Your task to perform on an android device: turn off location history Image 0: 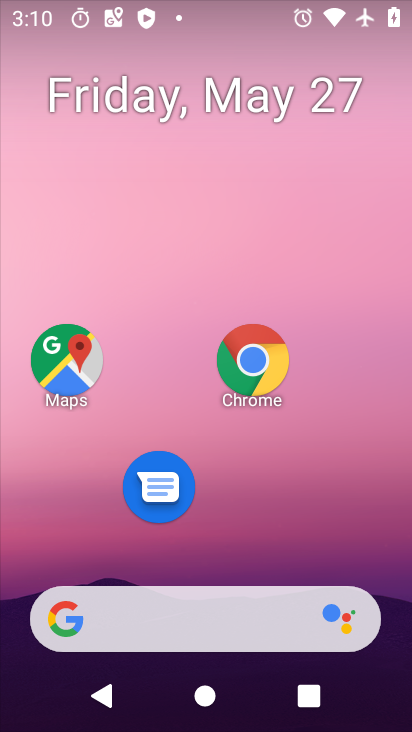
Step 0: drag from (242, 503) to (235, 48)
Your task to perform on an android device: turn off location history Image 1: 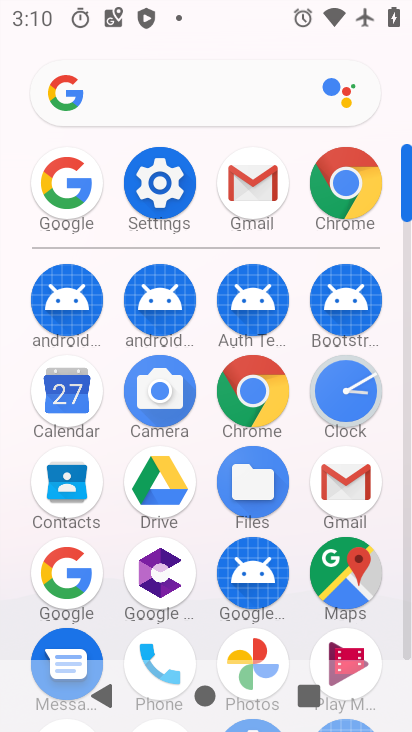
Step 1: click (173, 181)
Your task to perform on an android device: turn off location history Image 2: 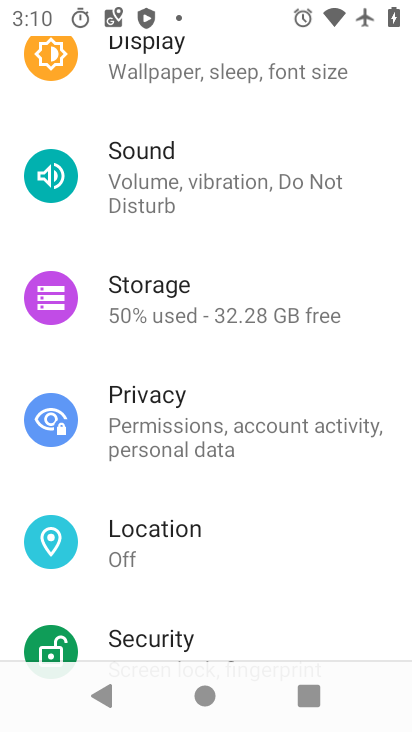
Step 2: drag from (263, 597) to (251, 121)
Your task to perform on an android device: turn off location history Image 3: 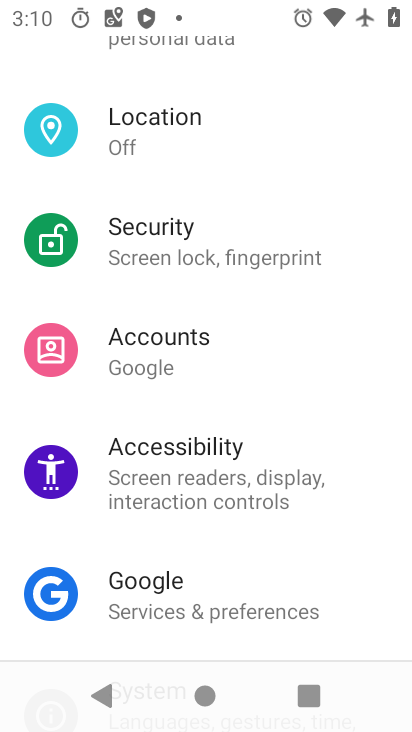
Step 3: drag from (223, 565) to (233, 97)
Your task to perform on an android device: turn off location history Image 4: 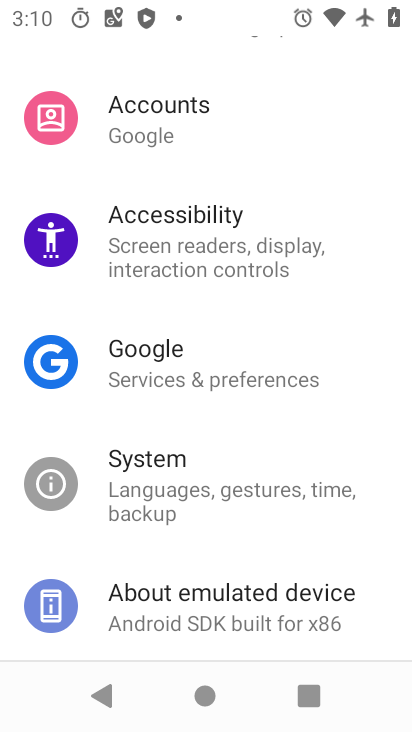
Step 4: drag from (211, 167) to (242, 575)
Your task to perform on an android device: turn off location history Image 5: 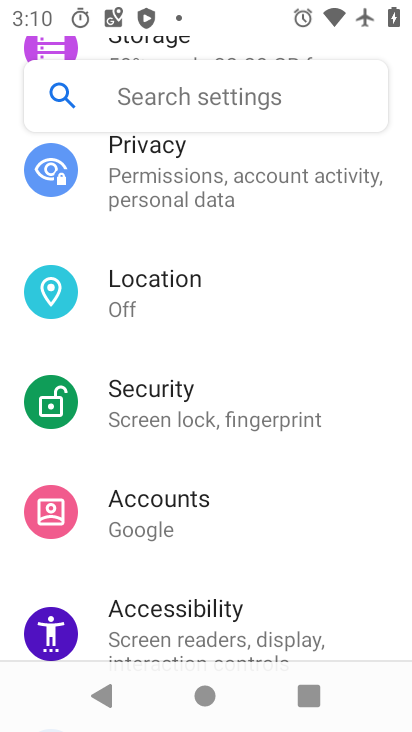
Step 5: click (148, 288)
Your task to perform on an android device: turn off location history Image 6: 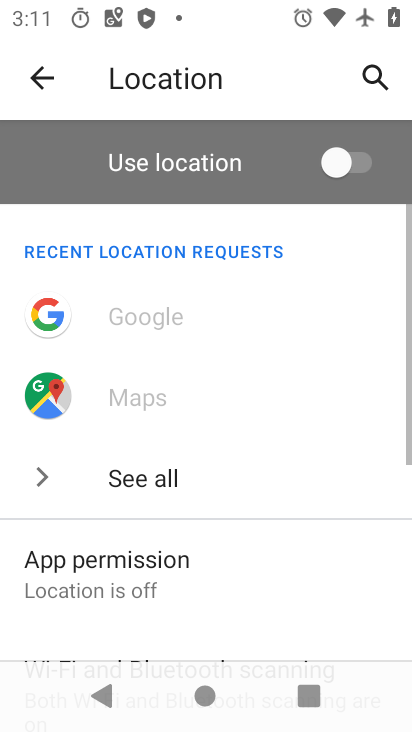
Step 6: drag from (194, 576) to (197, 92)
Your task to perform on an android device: turn off location history Image 7: 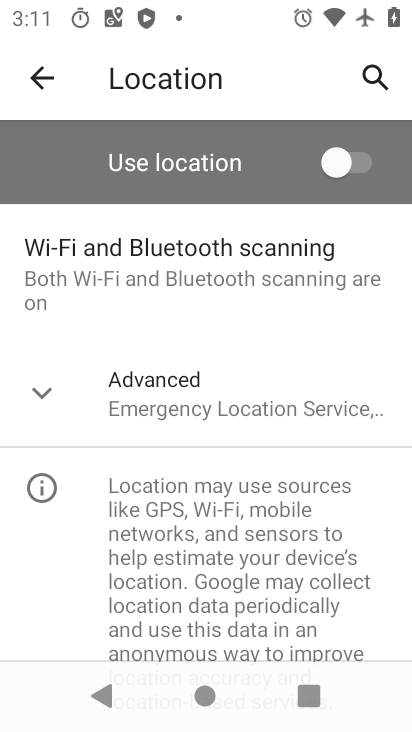
Step 7: click (161, 409)
Your task to perform on an android device: turn off location history Image 8: 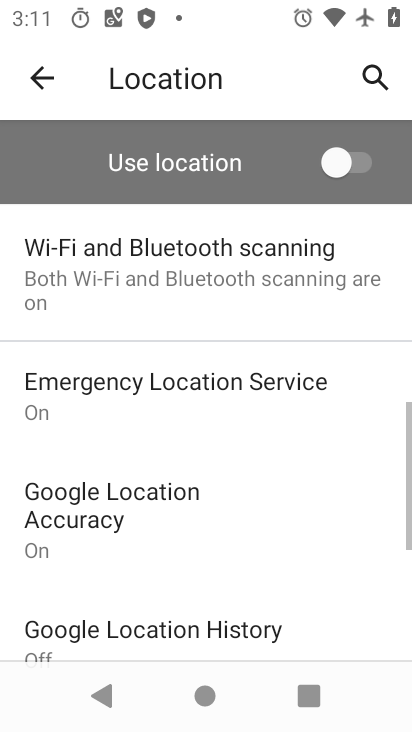
Step 8: click (143, 629)
Your task to perform on an android device: turn off location history Image 9: 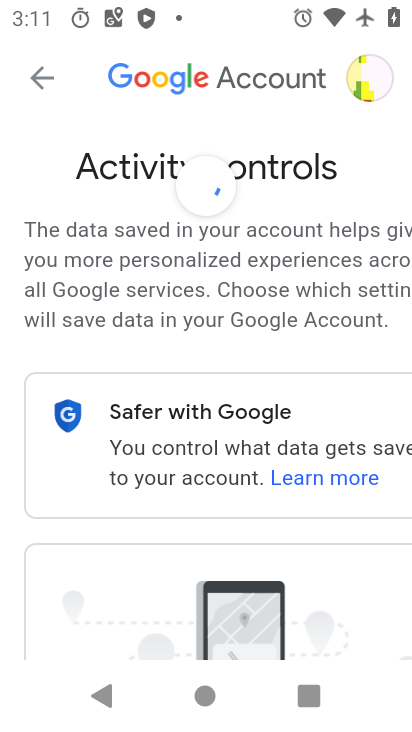
Step 9: task complete